Your task to perform on an android device: turn off priority inbox in the gmail app Image 0: 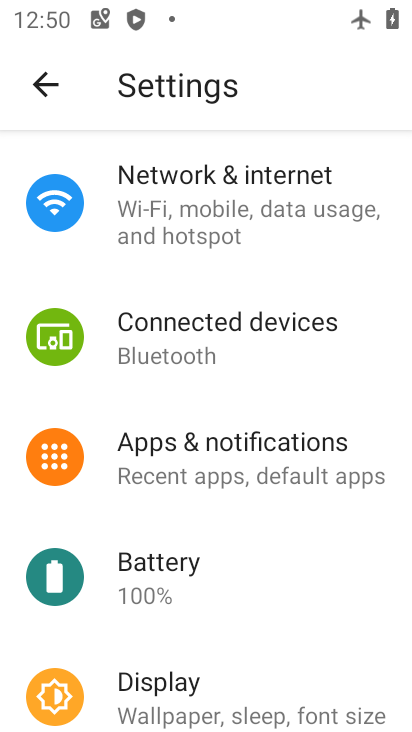
Step 0: press home button
Your task to perform on an android device: turn off priority inbox in the gmail app Image 1: 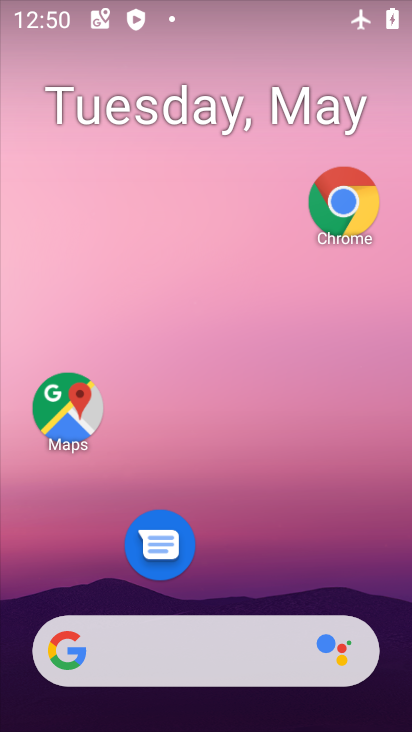
Step 1: drag from (227, 571) to (408, 261)
Your task to perform on an android device: turn off priority inbox in the gmail app Image 2: 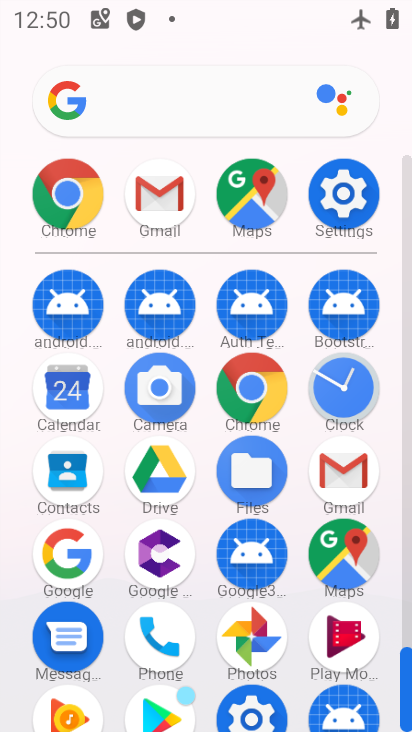
Step 2: click (164, 210)
Your task to perform on an android device: turn off priority inbox in the gmail app Image 3: 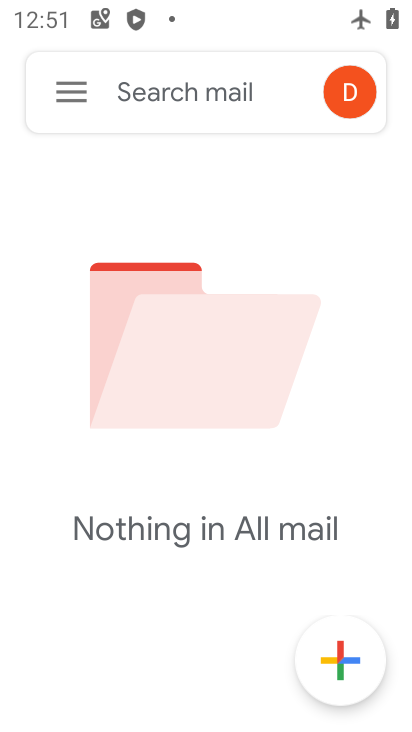
Step 3: click (76, 98)
Your task to perform on an android device: turn off priority inbox in the gmail app Image 4: 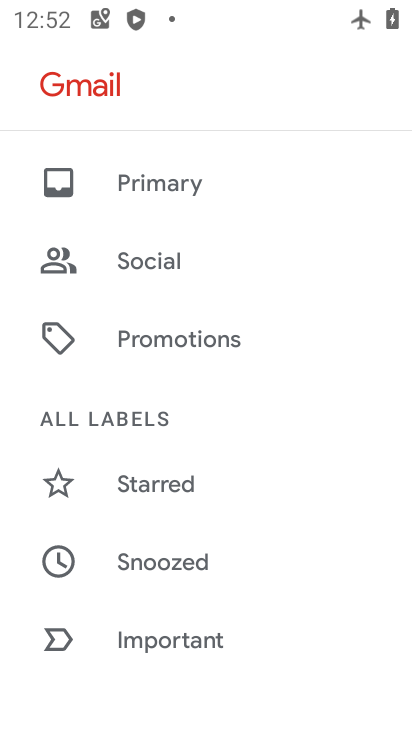
Step 4: drag from (205, 595) to (258, 206)
Your task to perform on an android device: turn off priority inbox in the gmail app Image 5: 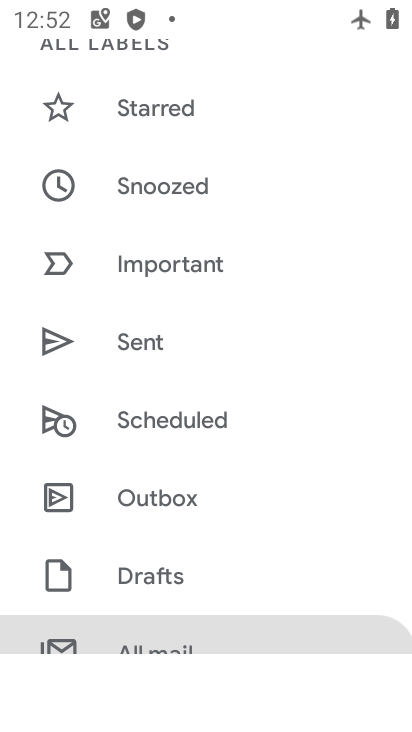
Step 5: drag from (77, 593) to (139, 241)
Your task to perform on an android device: turn off priority inbox in the gmail app Image 6: 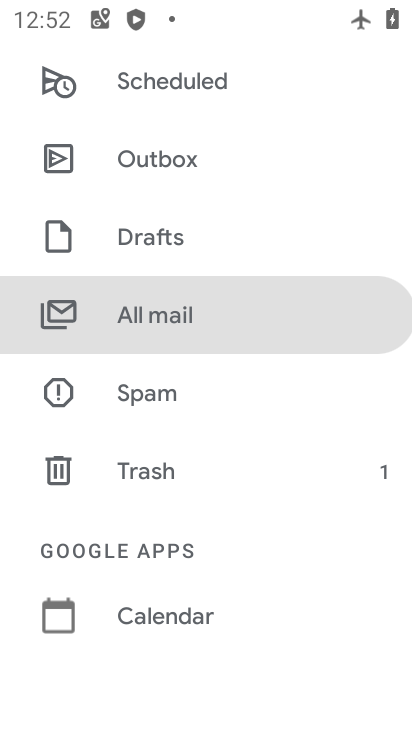
Step 6: drag from (176, 661) to (192, 251)
Your task to perform on an android device: turn off priority inbox in the gmail app Image 7: 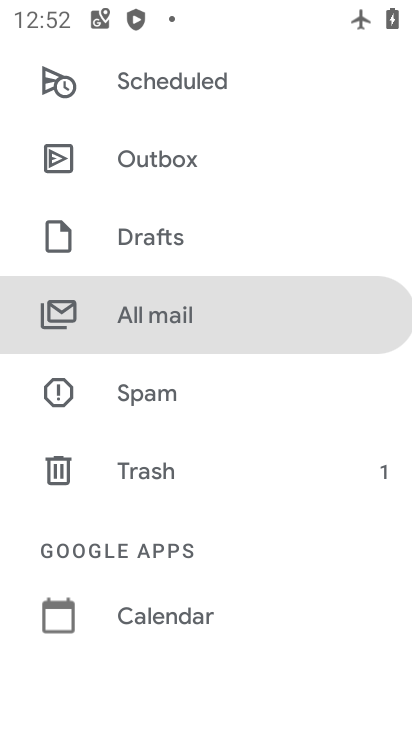
Step 7: click (151, 703)
Your task to perform on an android device: turn off priority inbox in the gmail app Image 8: 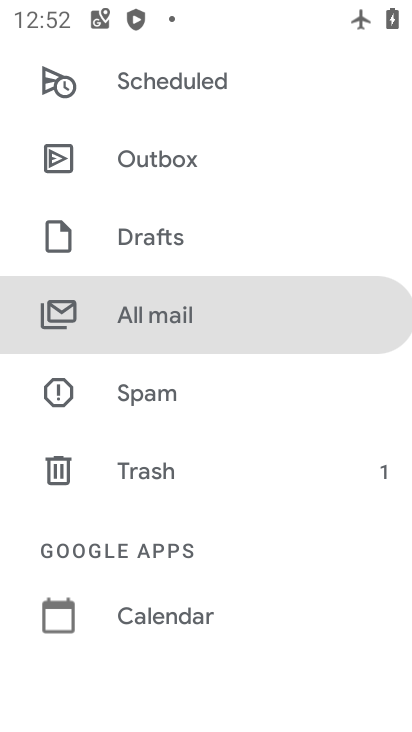
Step 8: drag from (115, 674) to (183, 104)
Your task to perform on an android device: turn off priority inbox in the gmail app Image 9: 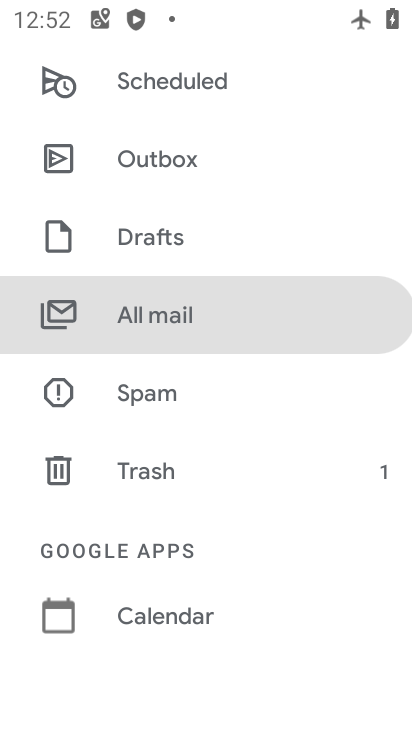
Step 9: drag from (155, 631) to (210, 20)
Your task to perform on an android device: turn off priority inbox in the gmail app Image 10: 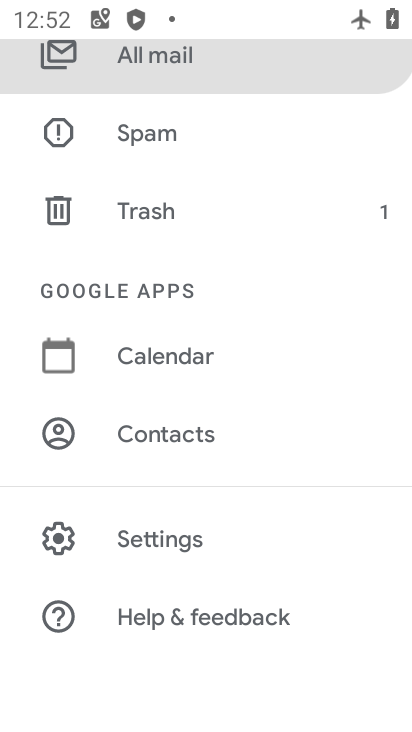
Step 10: click (128, 539)
Your task to perform on an android device: turn off priority inbox in the gmail app Image 11: 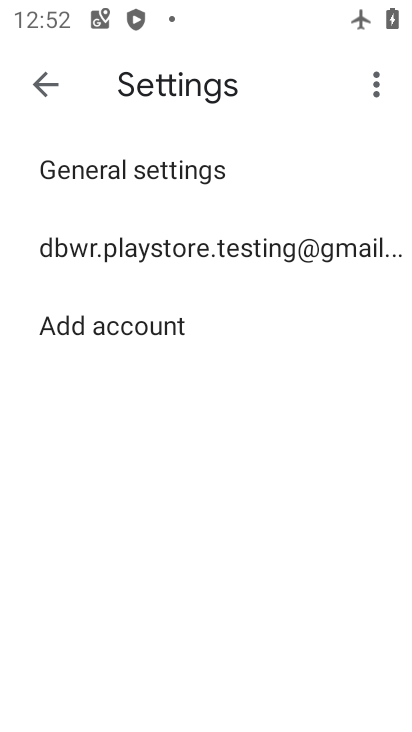
Step 11: click (191, 247)
Your task to perform on an android device: turn off priority inbox in the gmail app Image 12: 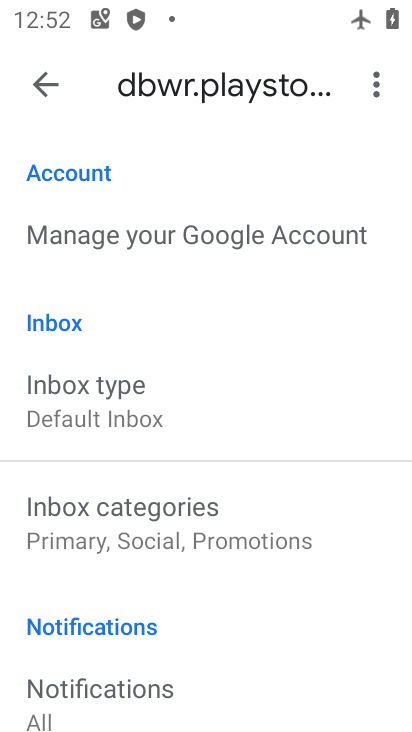
Step 12: click (172, 443)
Your task to perform on an android device: turn off priority inbox in the gmail app Image 13: 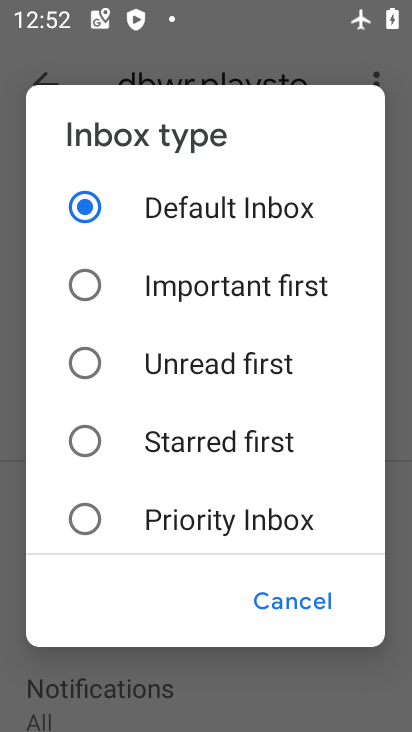
Step 13: click (185, 395)
Your task to perform on an android device: turn off priority inbox in the gmail app Image 14: 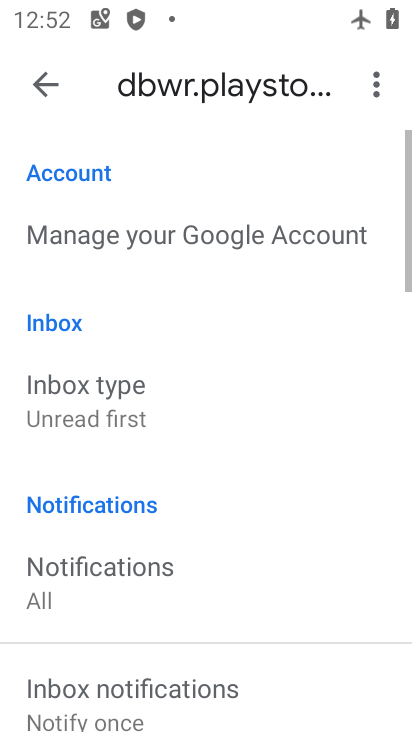
Step 14: task complete